Your task to perform on an android device: Search for vegetarian restaurants on Maps Image 0: 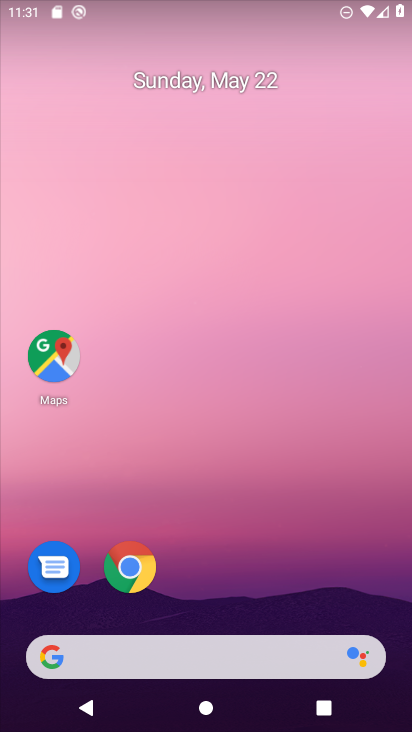
Step 0: click (59, 350)
Your task to perform on an android device: Search for vegetarian restaurants on Maps Image 1: 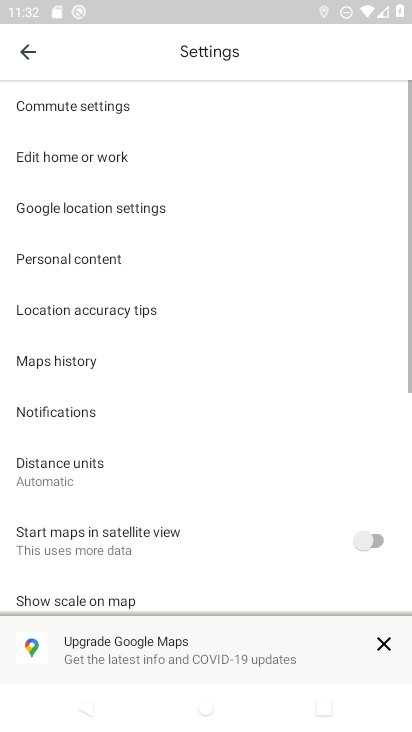
Step 1: click (26, 58)
Your task to perform on an android device: Search for vegetarian restaurants on Maps Image 2: 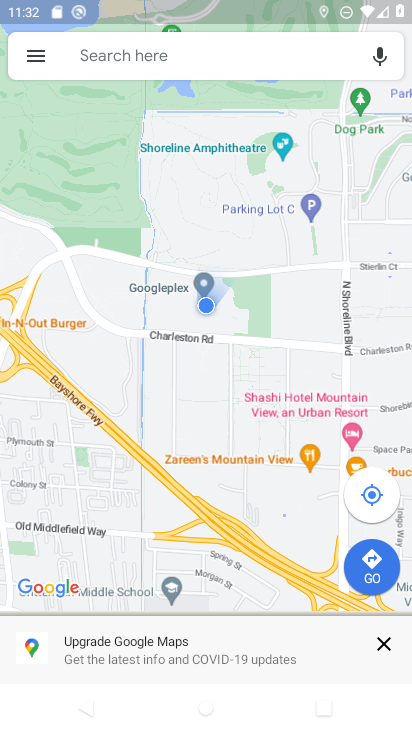
Step 2: click (212, 50)
Your task to perform on an android device: Search for vegetarian restaurants on Maps Image 3: 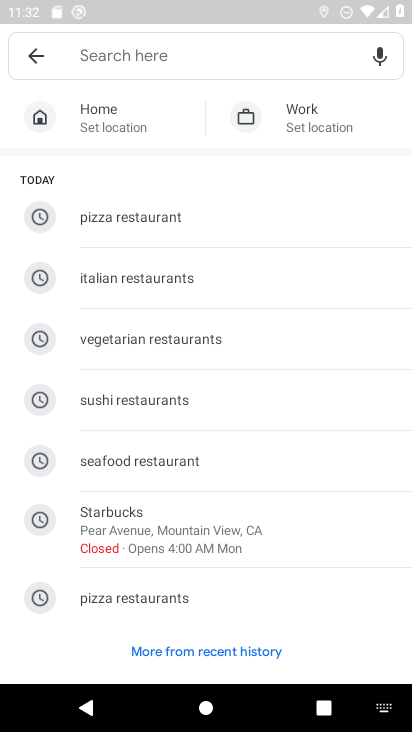
Step 3: click (174, 329)
Your task to perform on an android device: Search for vegetarian restaurants on Maps Image 4: 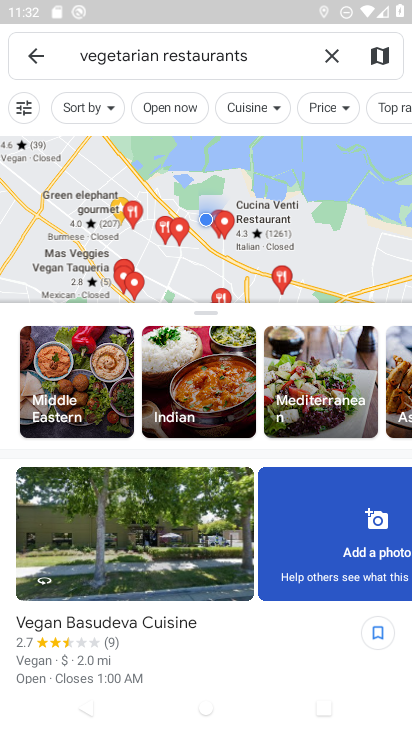
Step 4: task complete